Your task to perform on an android device: change notifications settings Image 0: 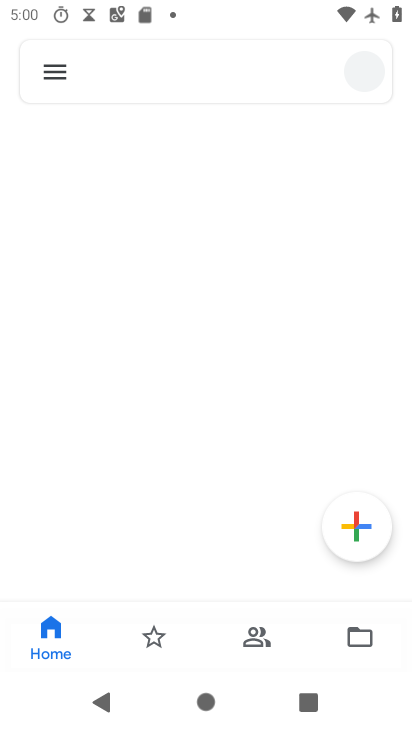
Step 0: press home button
Your task to perform on an android device: change notifications settings Image 1: 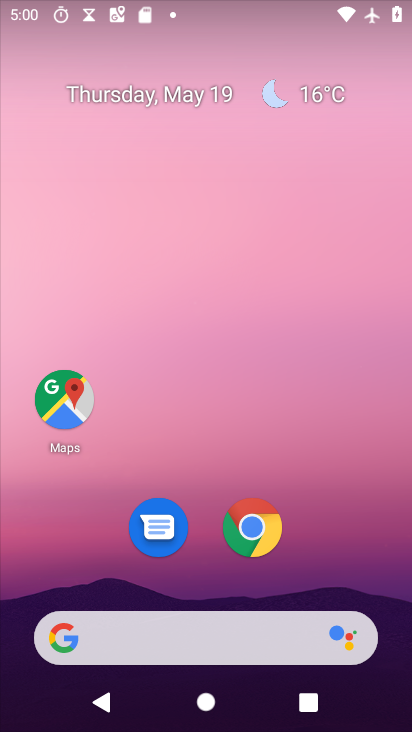
Step 1: drag from (361, 558) to (218, 40)
Your task to perform on an android device: change notifications settings Image 2: 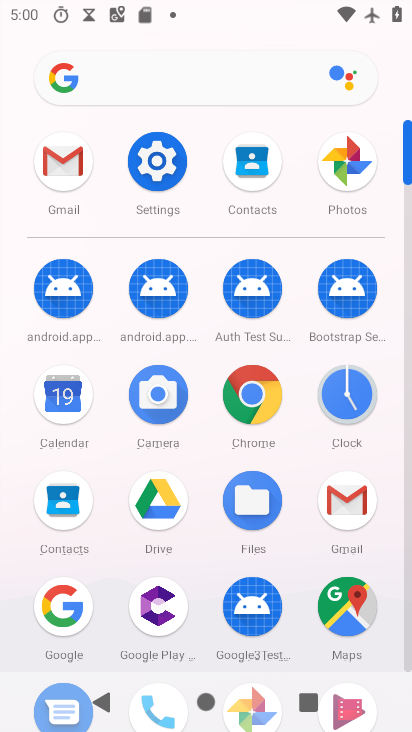
Step 2: click (164, 176)
Your task to perform on an android device: change notifications settings Image 3: 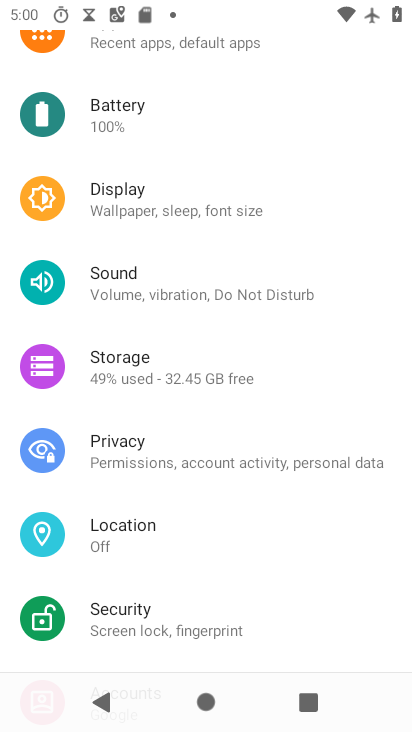
Step 3: drag from (281, 547) to (185, 710)
Your task to perform on an android device: change notifications settings Image 4: 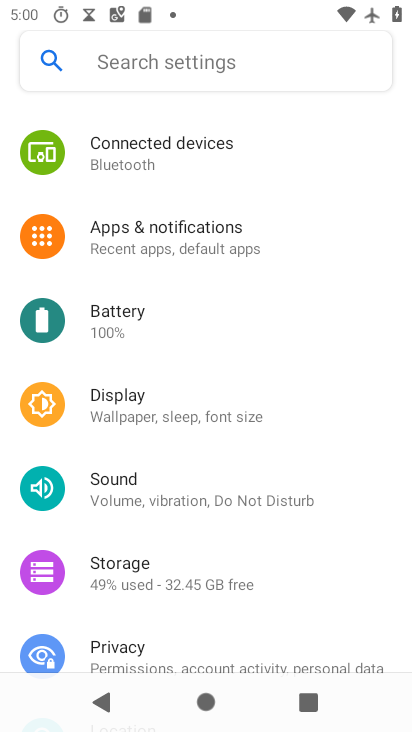
Step 4: click (146, 272)
Your task to perform on an android device: change notifications settings Image 5: 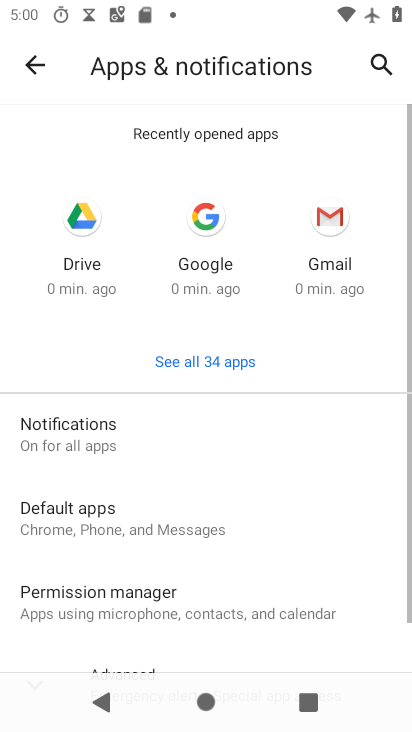
Step 5: click (198, 422)
Your task to perform on an android device: change notifications settings Image 6: 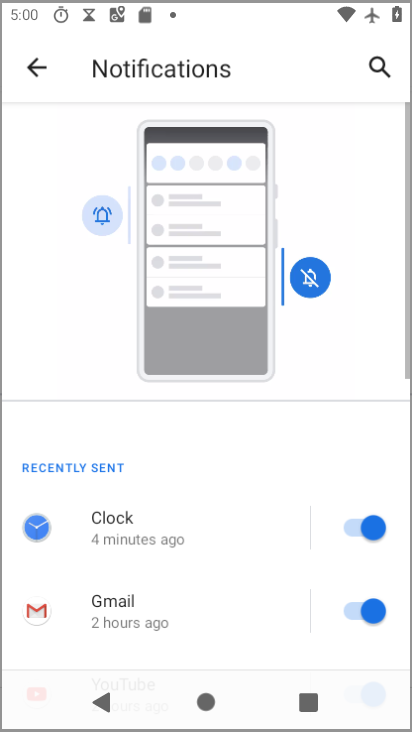
Step 6: drag from (312, 467) to (256, 116)
Your task to perform on an android device: change notifications settings Image 7: 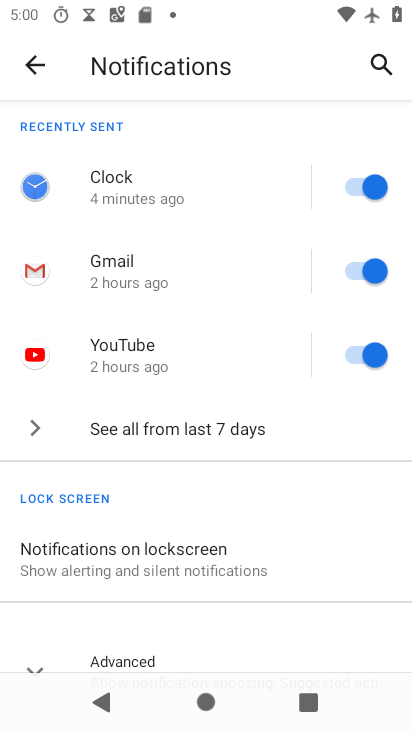
Step 7: click (360, 181)
Your task to perform on an android device: change notifications settings Image 8: 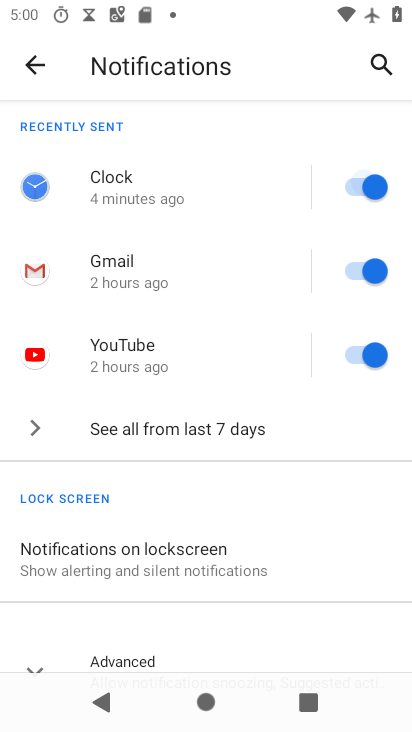
Step 8: click (367, 268)
Your task to perform on an android device: change notifications settings Image 9: 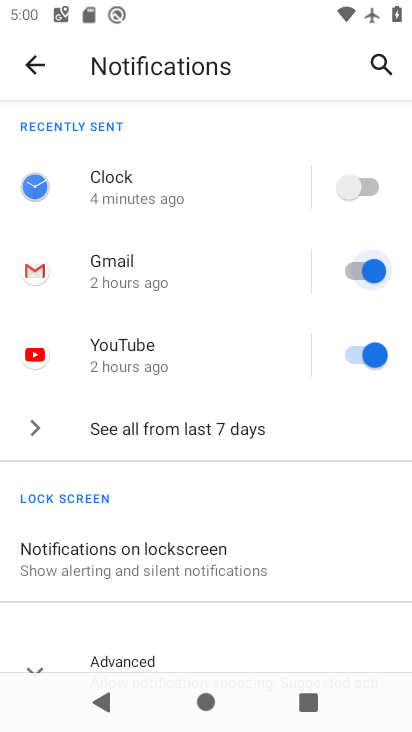
Step 9: click (372, 332)
Your task to perform on an android device: change notifications settings Image 10: 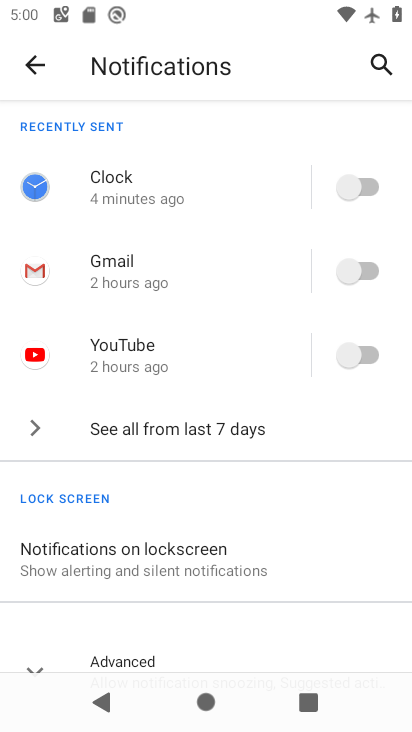
Step 10: task complete